Your task to perform on an android device: Go to Yahoo.com Image 0: 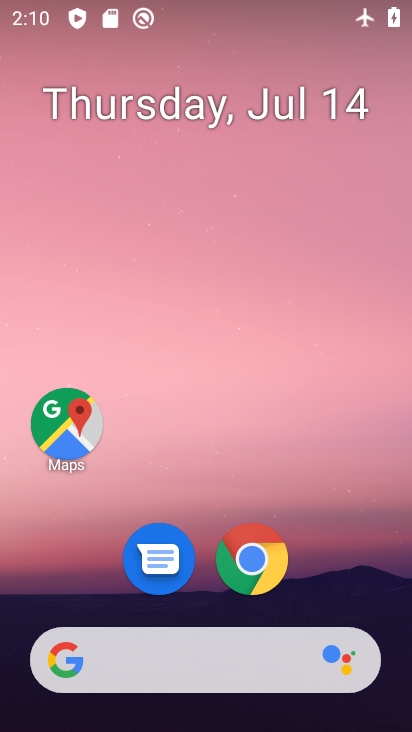
Step 0: drag from (216, 371) to (266, 3)
Your task to perform on an android device: Go to Yahoo.com Image 1: 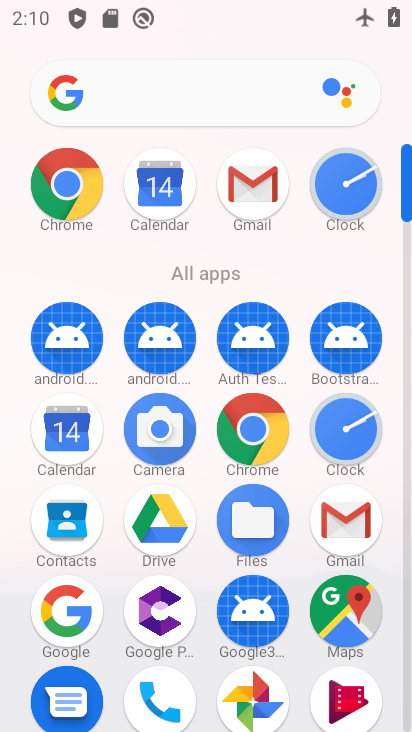
Step 1: drag from (156, 507) to (180, 274)
Your task to perform on an android device: Go to Yahoo.com Image 2: 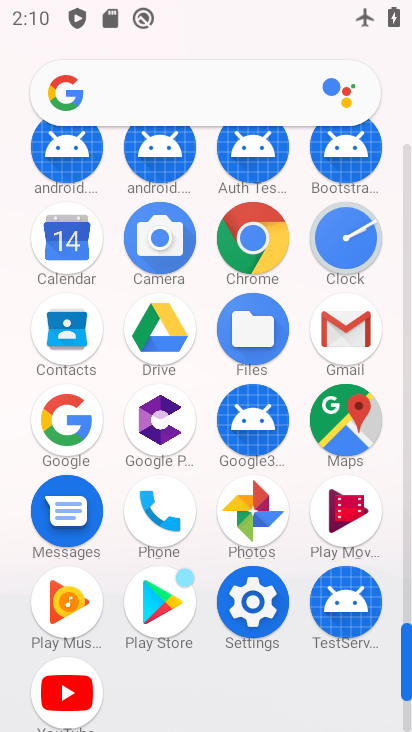
Step 2: click (258, 249)
Your task to perform on an android device: Go to Yahoo.com Image 3: 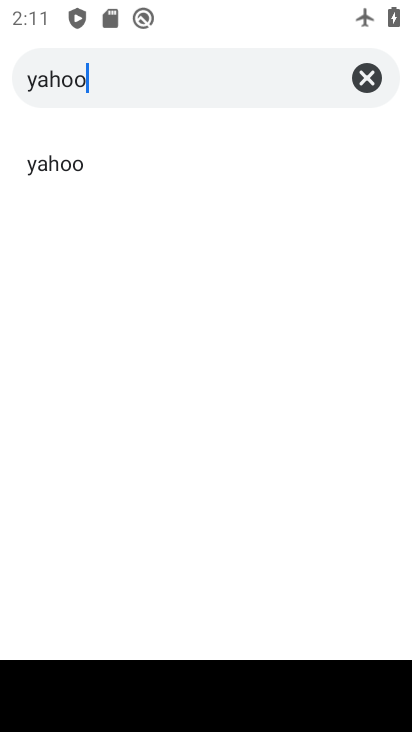
Step 3: task complete